Your task to perform on an android device: change the clock display to analog Image 0: 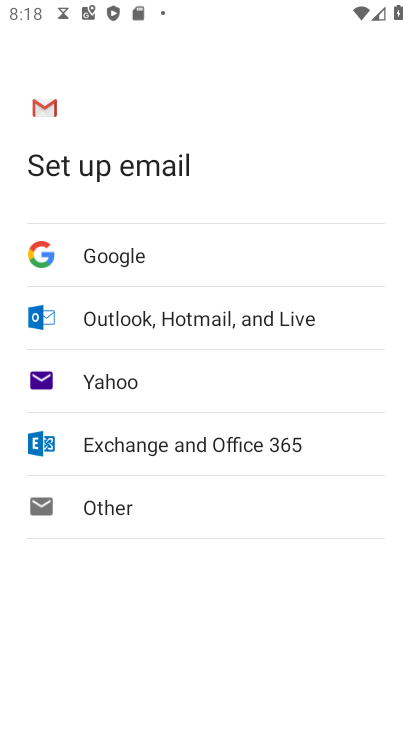
Step 0: press home button
Your task to perform on an android device: change the clock display to analog Image 1: 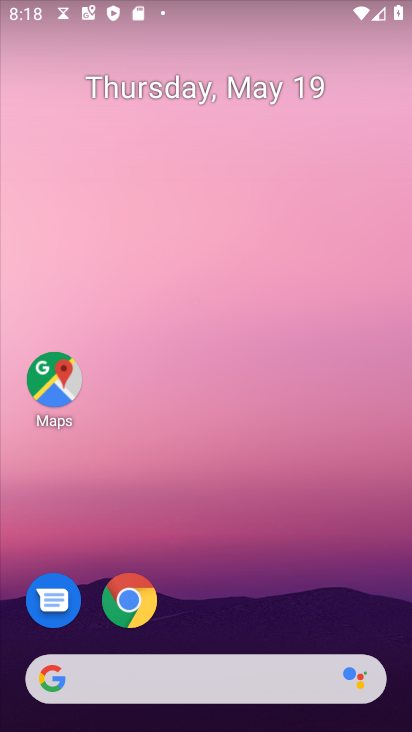
Step 1: drag from (255, 618) to (221, 2)
Your task to perform on an android device: change the clock display to analog Image 2: 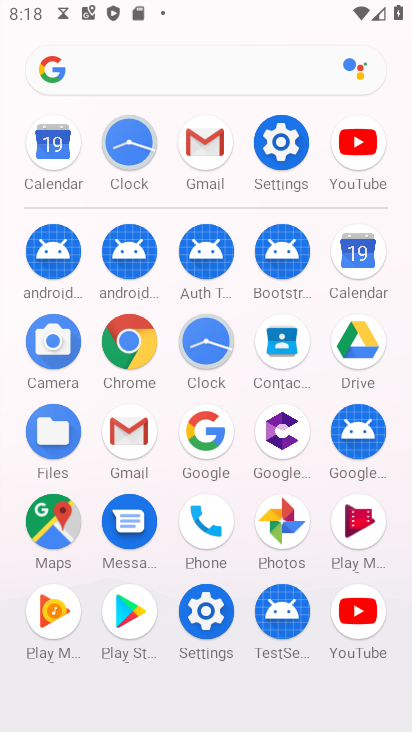
Step 2: click (126, 162)
Your task to perform on an android device: change the clock display to analog Image 3: 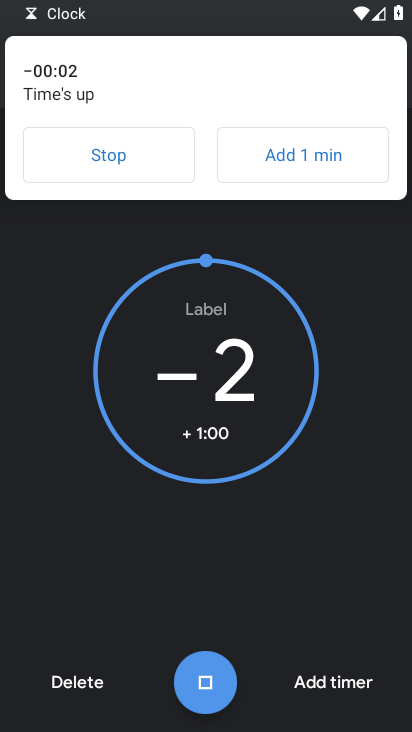
Step 3: click (99, 161)
Your task to perform on an android device: change the clock display to analog Image 4: 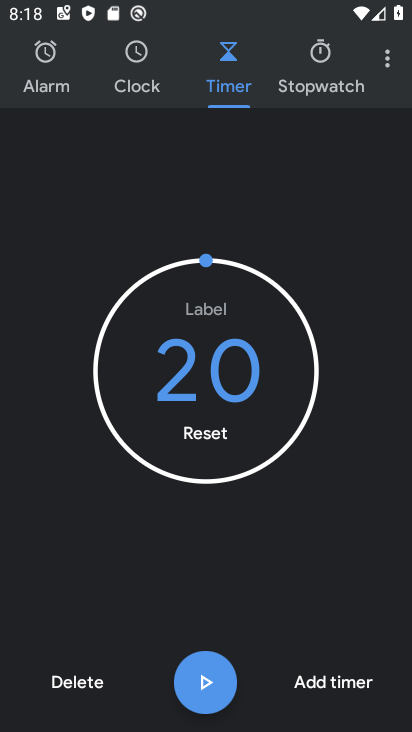
Step 4: click (394, 53)
Your task to perform on an android device: change the clock display to analog Image 5: 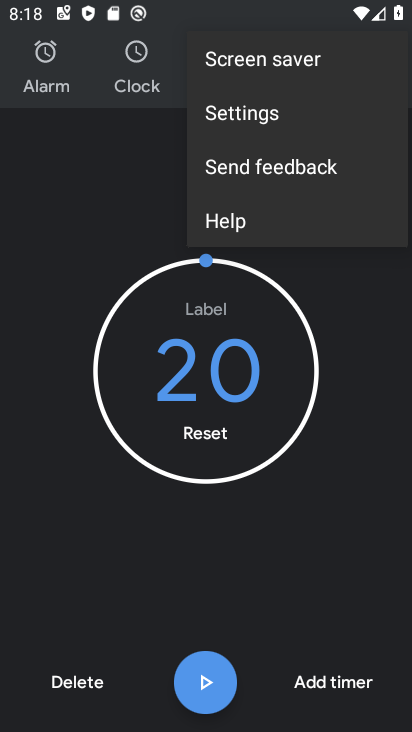
Step 5: click (251, 118)
Your task to perform on an android device: change the clock display to analog Image 6: 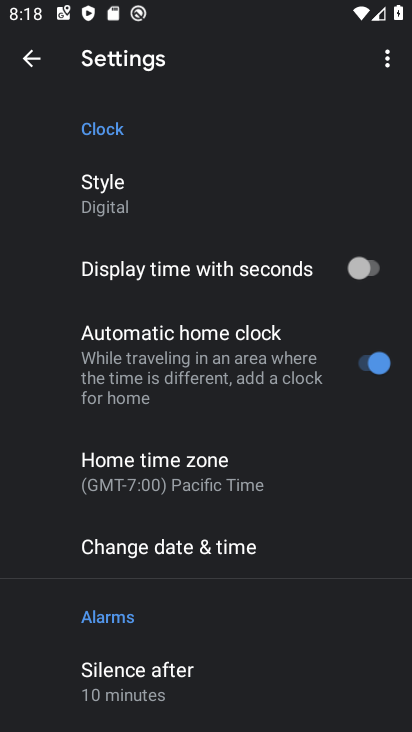
Step 6: click (105, 192)
Your task to perform on an android device: change the clock display to analog Image 7: 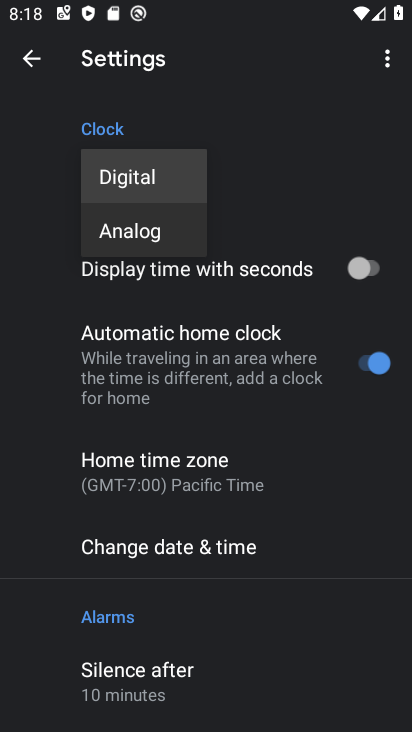
Step 7: click (126, 242)
Your task to perform on an android device: change the clock display to analog Image 8: 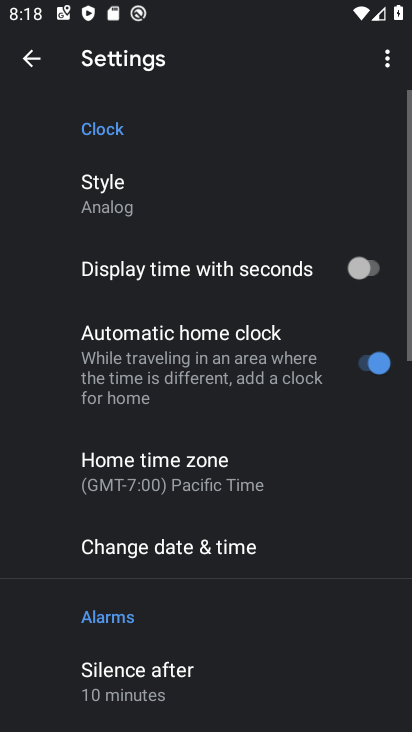
Step 8: task complete